Your task to perform on an android device: Open Chrome and go to settings Image 0: 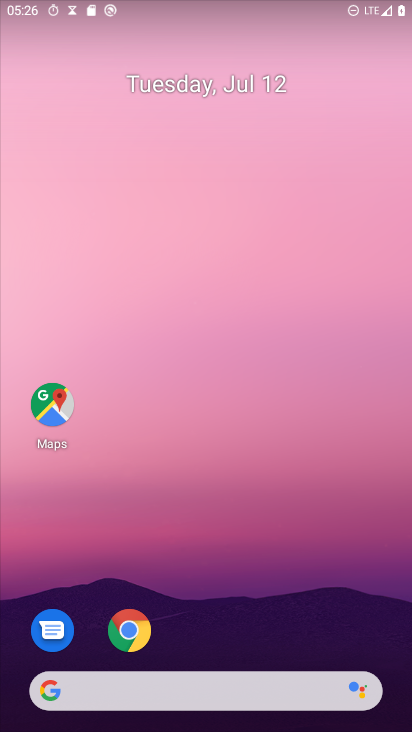
Step 0: drag from (209, 678) to (274, 78)
Your task to perform on an android device: Open Chrome and go to settings Image 1: 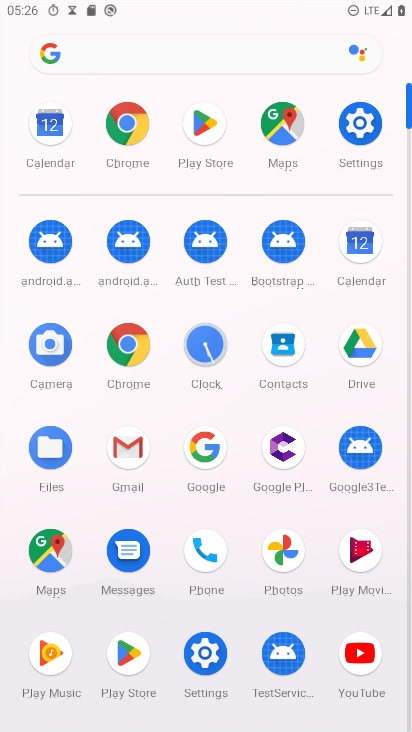
Step 1: click (123, 330)
Your task to perform on an android device: Open Chrome and go to settings Image 2: 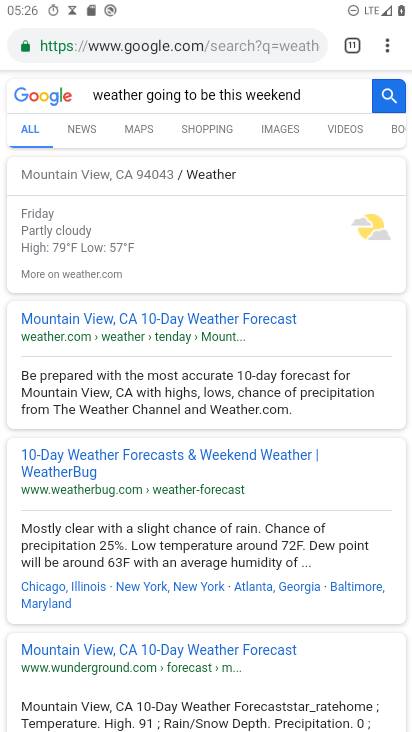
Step 2: task complete